Your task to perform on an android device: toggle javascript in the chrome app Image 0: 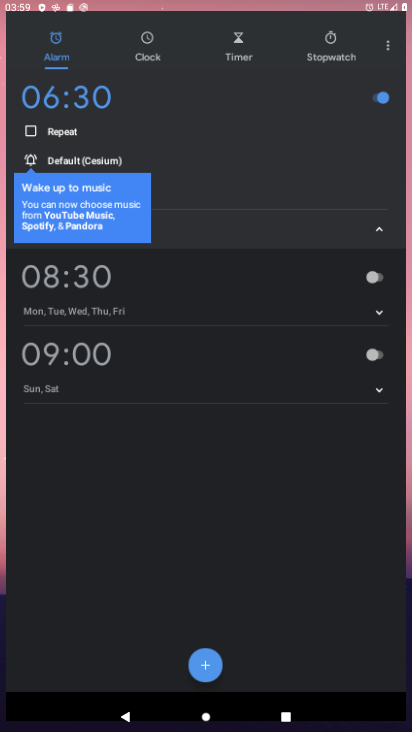
Step 0: drag from (289, 591) to (292, 160)
Your task to perform on an android device: toggle javascript in the chrome app Image 1: 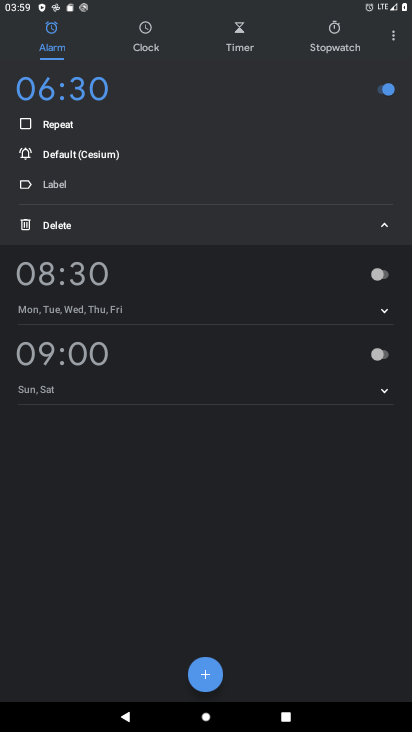
Step 1: press home button
Your task to perform on an android device: toggle javascript in the chrome app Image 2: 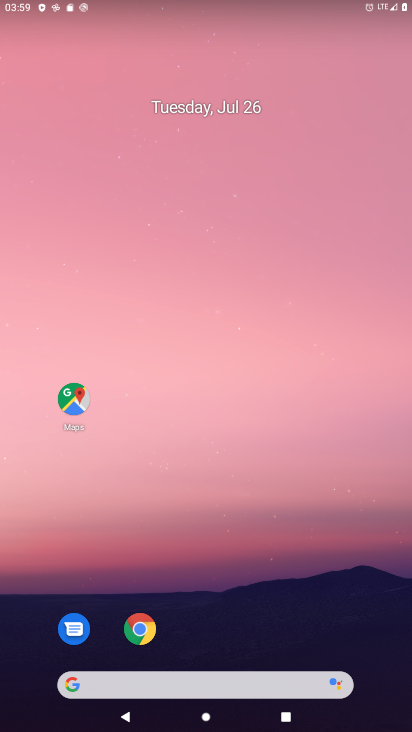
Step 2: drag from (275, 619) to (261, 61)
Your task to perform on an android device: toggle javascript in the chrome app Image 3: 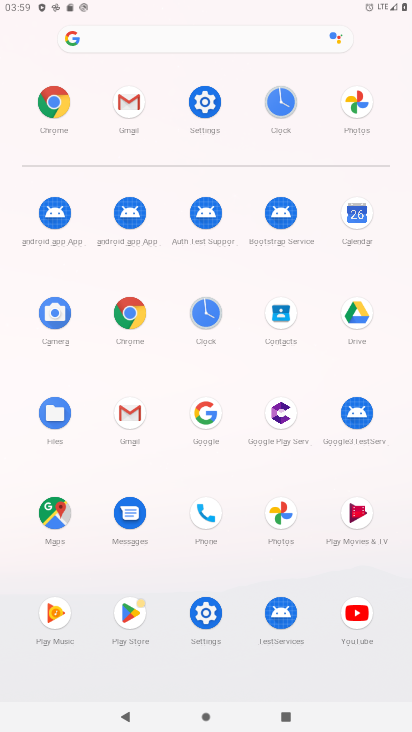
Step 3: click (125, 309)
Your task to perform on an android device: toggle javascript in the chrome app Image 4: 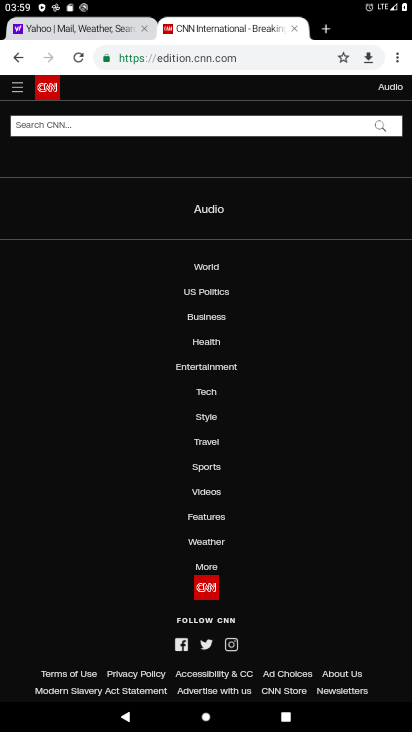
Step 4: drag from (401, 58) to (310, 373)
Your task to perform on an android device: toggle javascript in the chrome app Image 5: 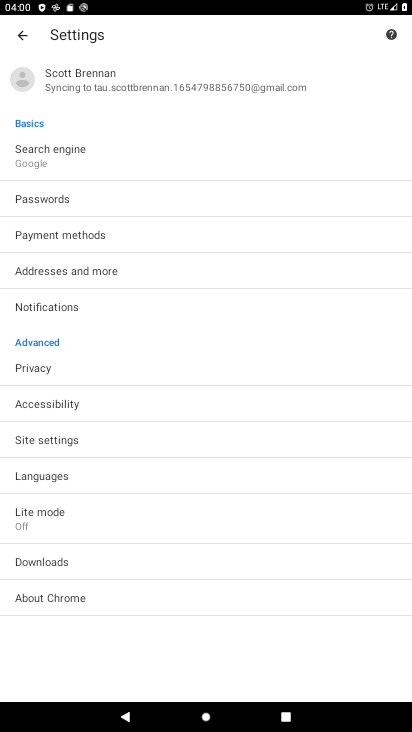
Step 5: click (82, 436)
Your task to perform on an android device: toggle javascript in the chrome app Image 6: 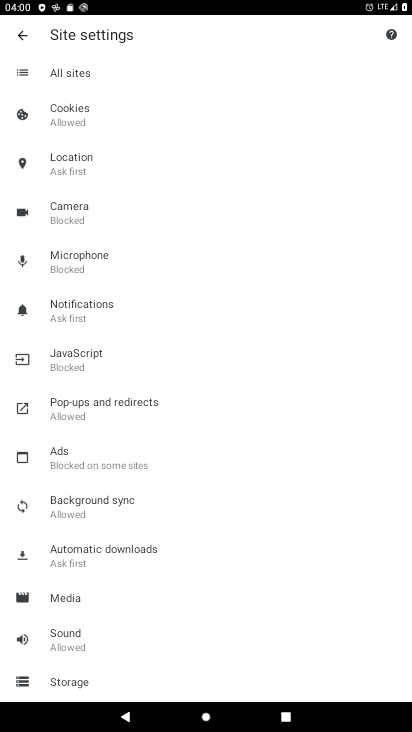
Step 6: click (79, 351)
Your task to perform on an android device: toggle javascript in the chrome app Image 7: 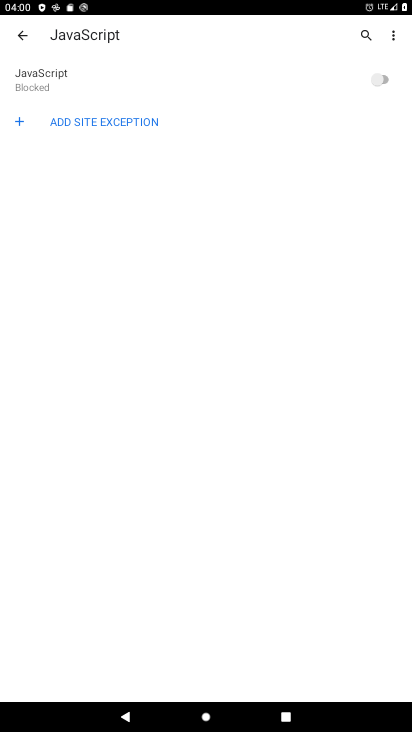
Step 7: click (94, 67)
Your task to perform on an android device: toggle javascript in the chrome app Image 8: 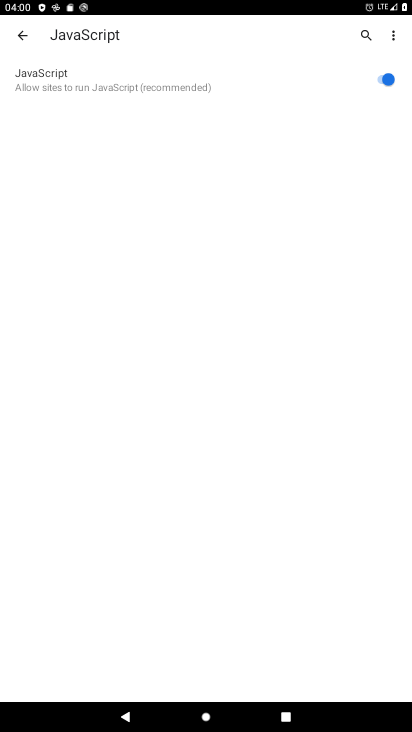
Step 8: task complete